Your task to perform on an android device: change text size in settings app Image 0: 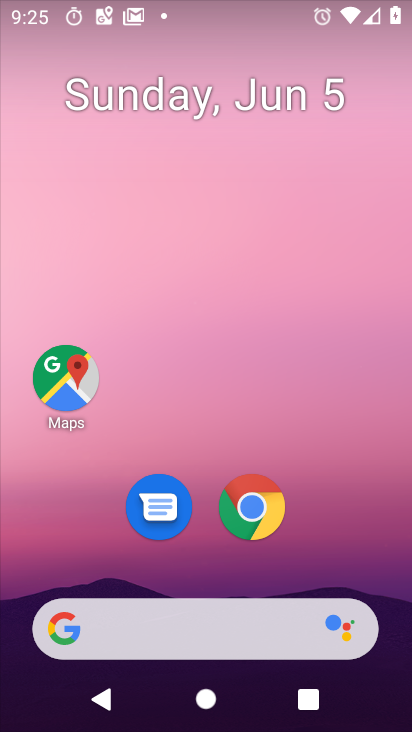
Step 0: drag from (244, 655) to (281, 51)
Your task to perform on an android device: change text size in settings app Image 1: 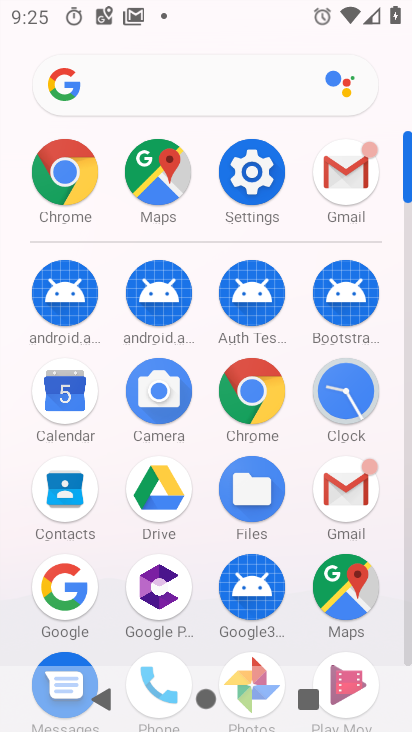
Step 1: click (239, 174)
Your task to perform on an android device: change text size in settings app Image 2: 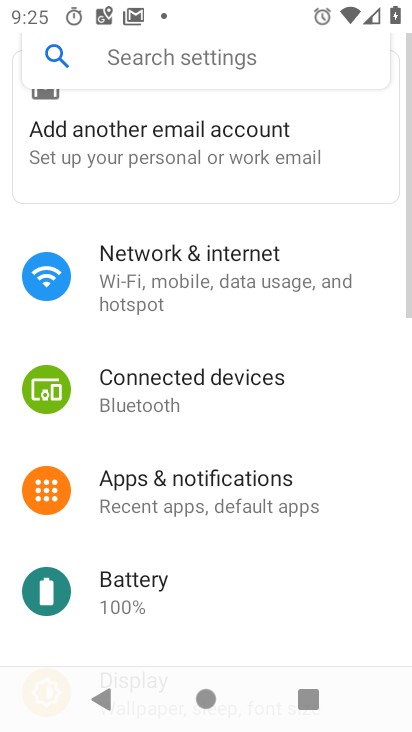
Step 2: click (148, 70)
Your task to perform on an android device: change text size in settings app Image 3: 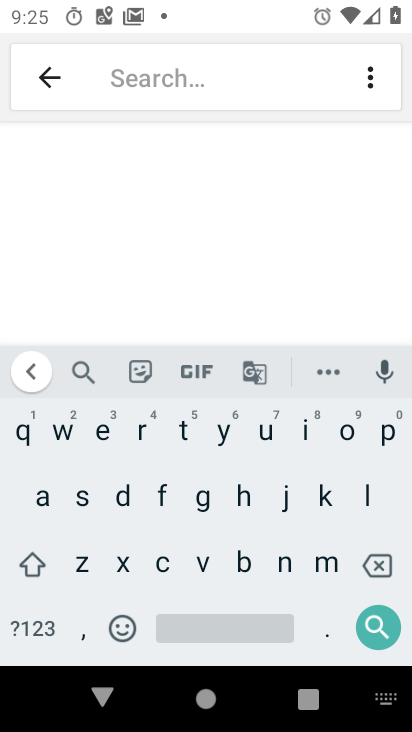
Step 3: click (73, 495)
Your task to perform on an android device: change text size in settings app Image 4: 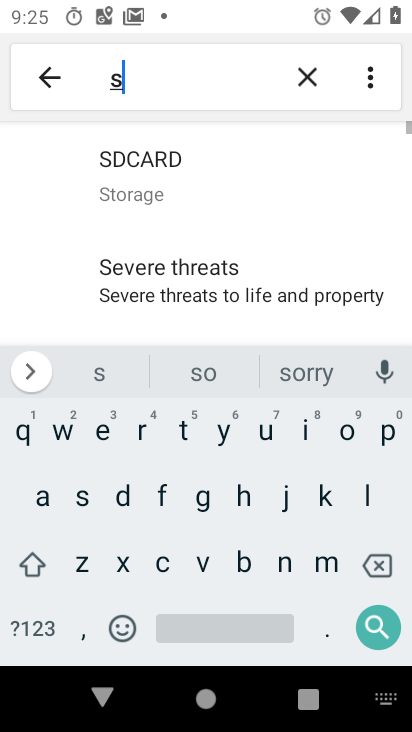
Step 4: click (305, 439)
Your task to perform on an android device: change text size in settings app Image 5: 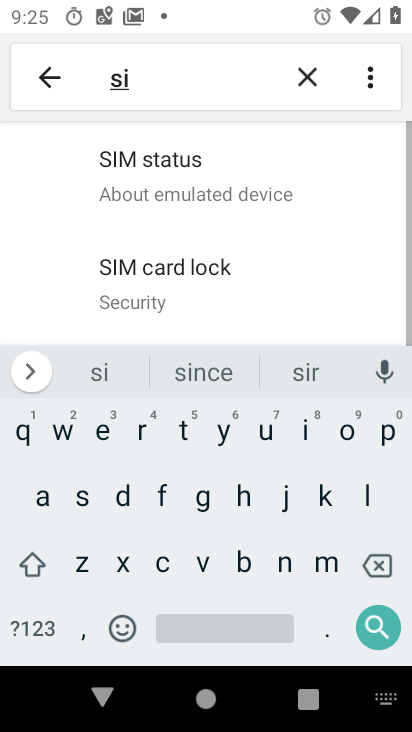
Step 5: click (81, 562)
Your task to perform on an android device: change text size in settings app Image 6: 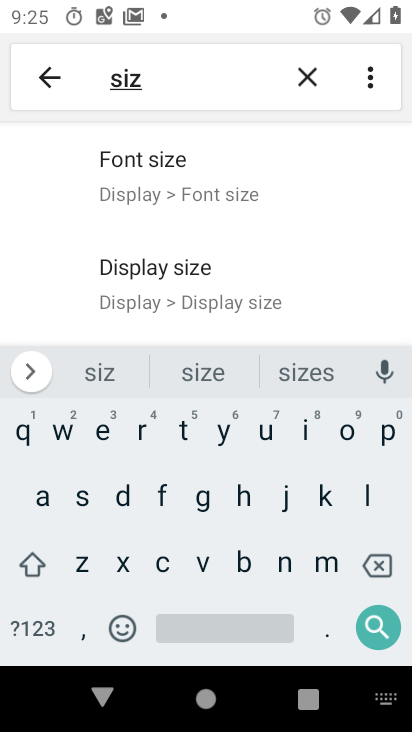
Step 6: click (160, 147)
Your task to perform on an android device: change text size in settings app Image 7: 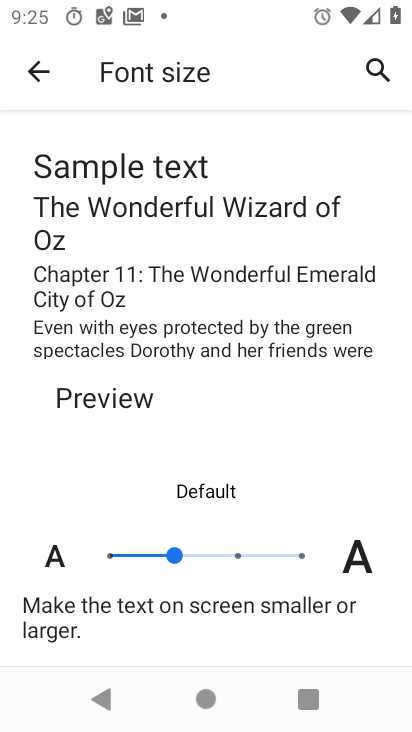
Step 7: click (125, 566)
Your task to perform on an android device: change text size in settings app Image 8: 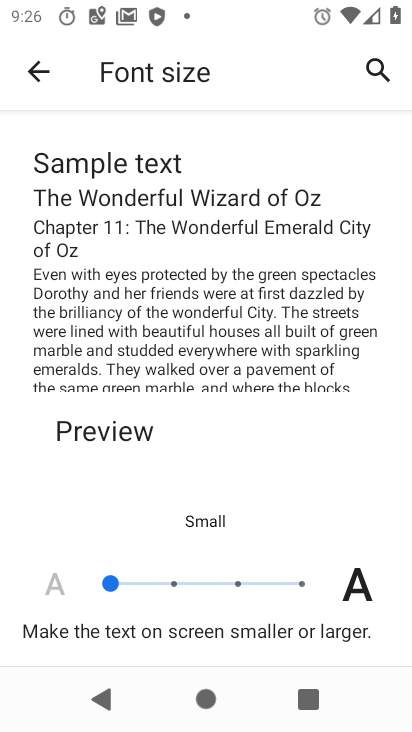
Step 8: task complete